Your task to perform on an android device: turn off picture-in-picture Image 0: 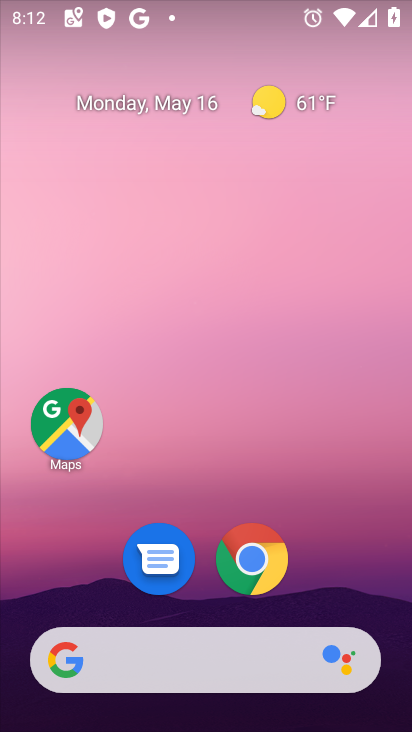
Step 0: drag from (375, 584) to (383, 215)
Your task to perform on an android device: turn off picture-in-picture Image 1: 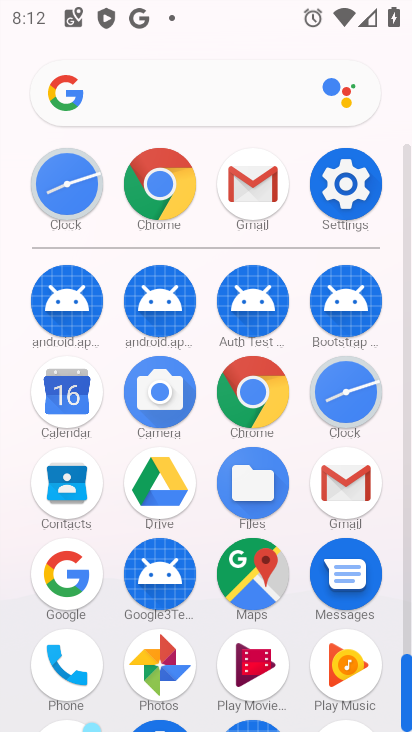
Step 1: click (348, 193)
Your task to perform on an android device: turn off picture-in-picture Image 2: 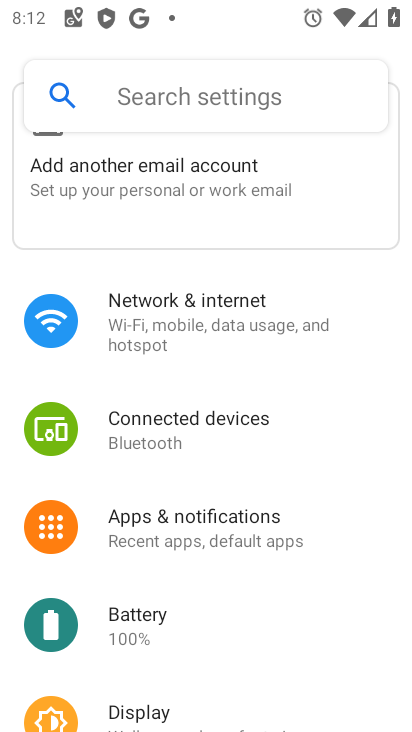
Step 2: click (236, 517)
Your task to perform on an android device: turn off picture-in-picture Image 3: 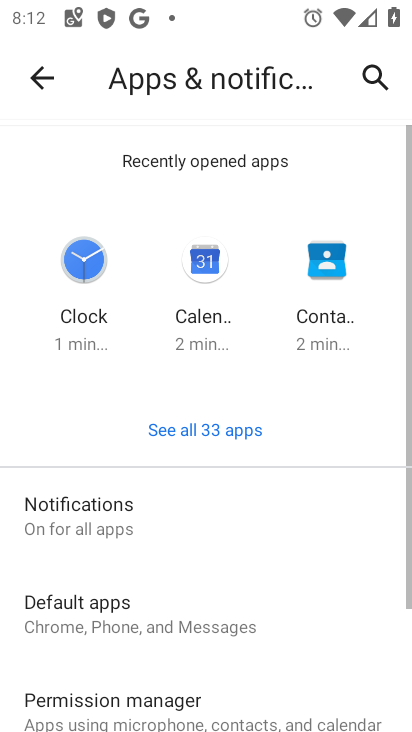
Step 3: drag from (226, 648) to (301, 228)
Your task to perform on an android device: turn off picture-in-picture Image 4: 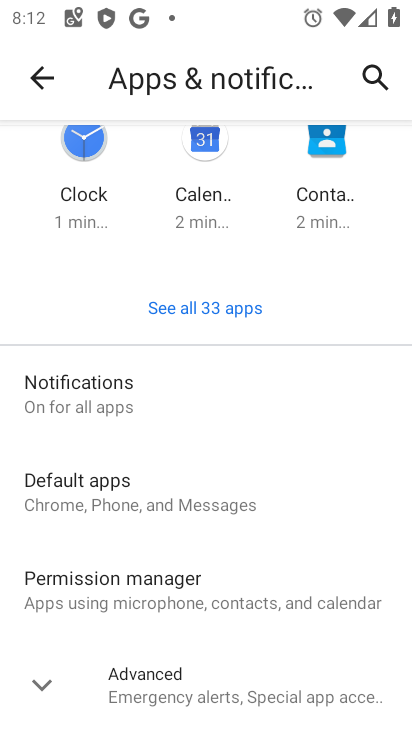
Step 4: click (259, 688)
Your task to perform on an android device: turn off picture-in-picture Image 5: 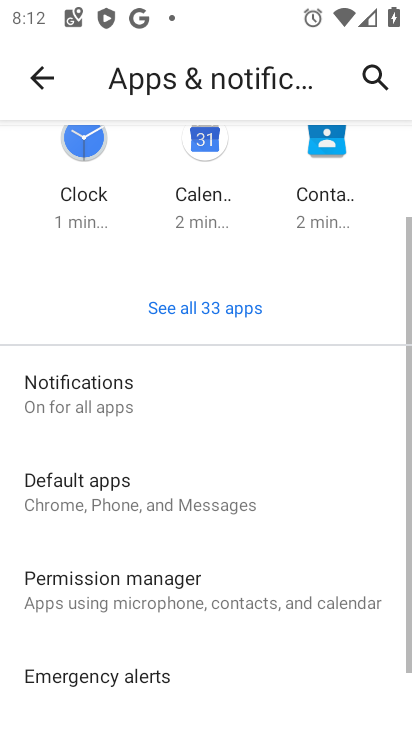
Step 5: drag from (258, 682) to (313, 226)
Your task to perform on an android device: turn off picture-in-picture Image 6: 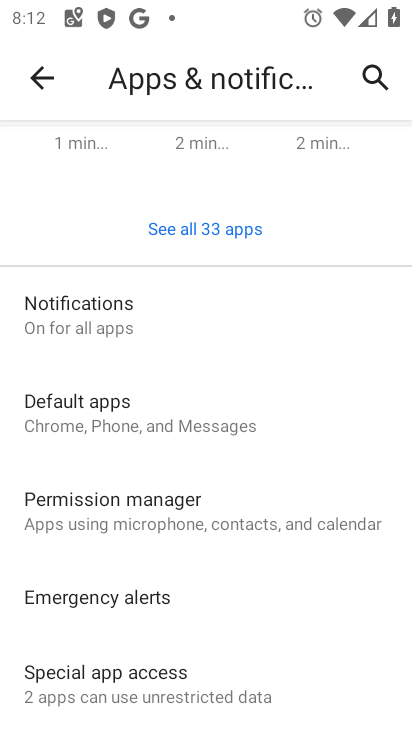
Step 6: click (211, 691)
Your task to perform on an android device: turn off picture-in-picture Image 7: 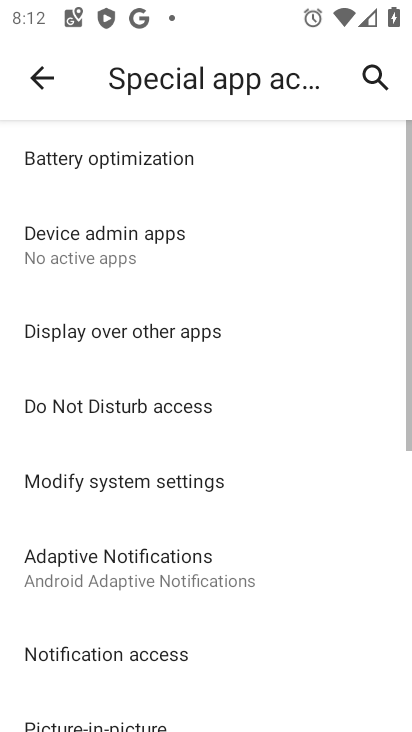
Step 7: drag from (219, 687) to (355, 176)
Your task to perform on an android device: turn off picture-in-picture Image 8: 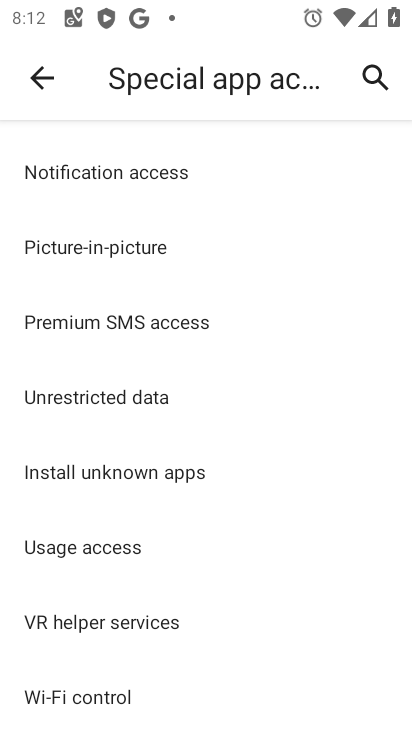
Step 8: click (153, 236)
Your task to perform on an android device: turn off picture-in-picture Image 9: 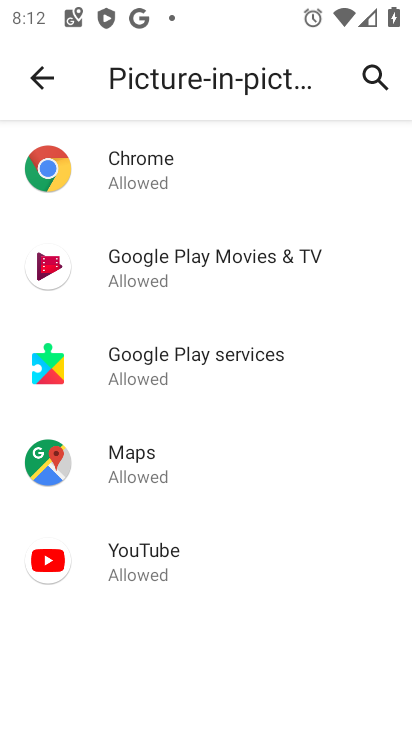
Step 9: click (275, 200)
Your task to perform on an android device: turn off picture-in-picture Image 10: 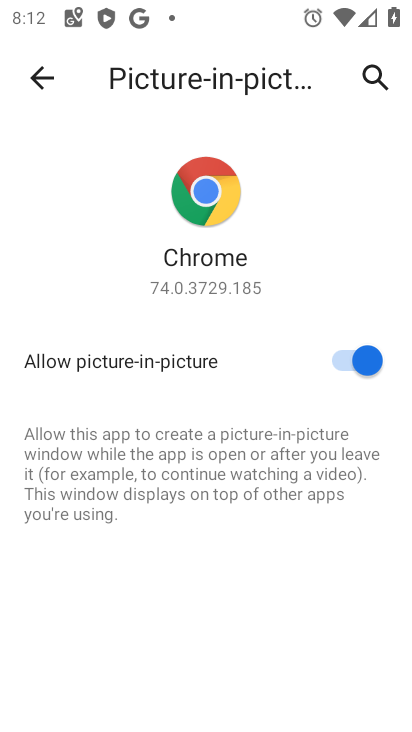
Step 10: click (342, 364)
Your task to perform on an android device: turn off picture-in-picture Image 11: 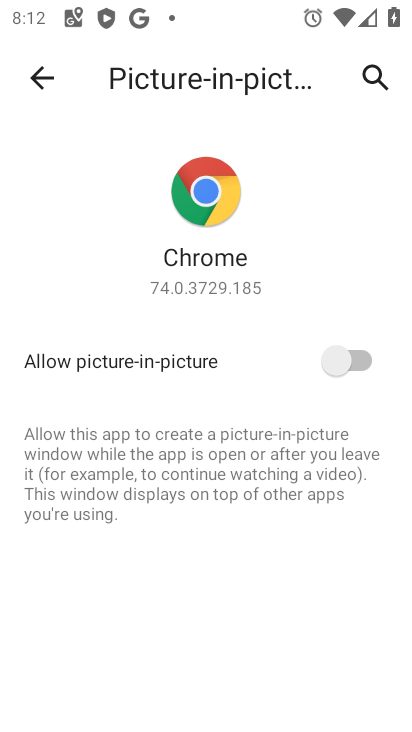
Step 11: task complete